Your task to perform on an android device: Open the stopwatch Image 0: 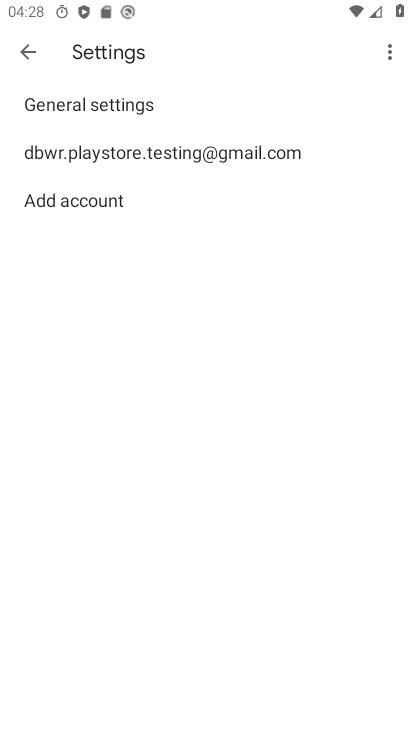
Step 0: press home button
Your task to perform on an android device: Open the stopwatch Image 1: 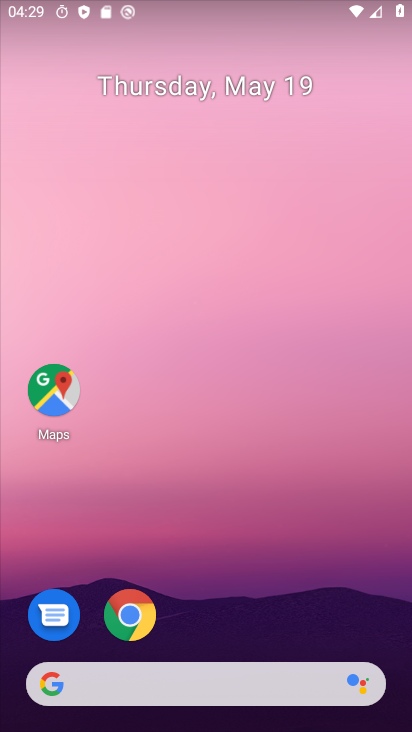
Step 1: drag from (275, 531) to (330, 29)
Your task to perform on an android device: Open the stopwatch Image 2: 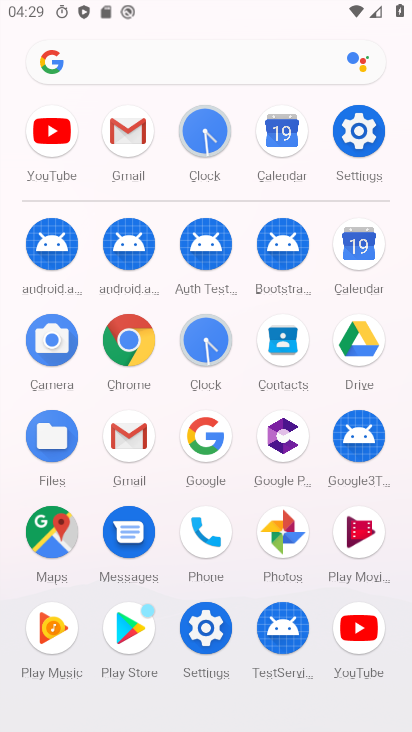
Step 2: click (216, 143)
Your task to perform on an android device: Open the stopwatch Image 3: 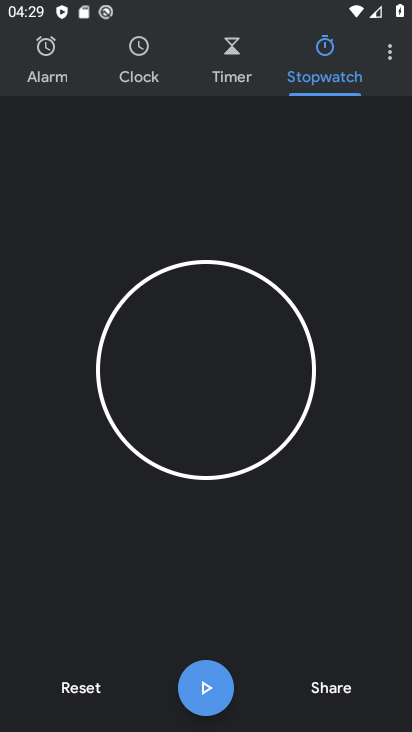
Step 3: task complete